Your task to perform on an android device: change timer sound Image 0: 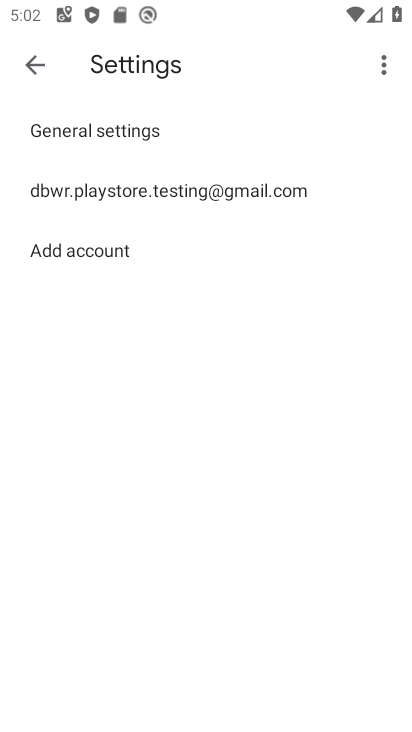
Step 0: press back button
Your task to perform on an android device: change timer sound Image 1: 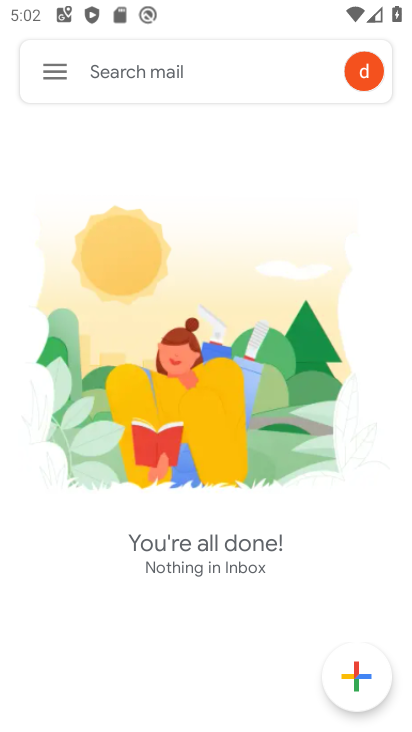
Step 1: press back button
Your task to perform on an android device: change timer sound Image 2: 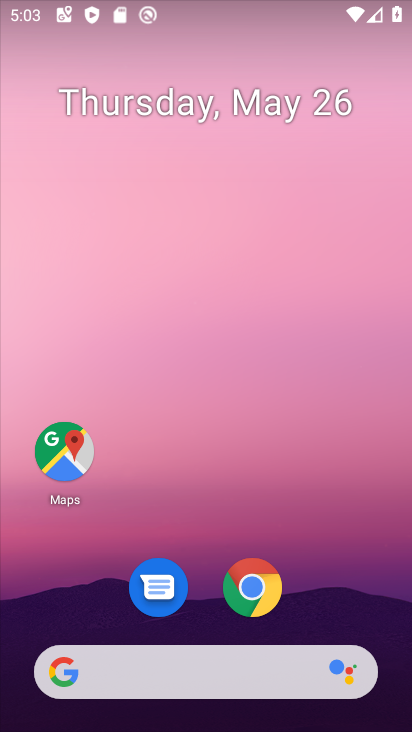
Step 2: drag from (333, 546) to (266, 66)
Your task to perform on an android device: change timer sound Image 3: 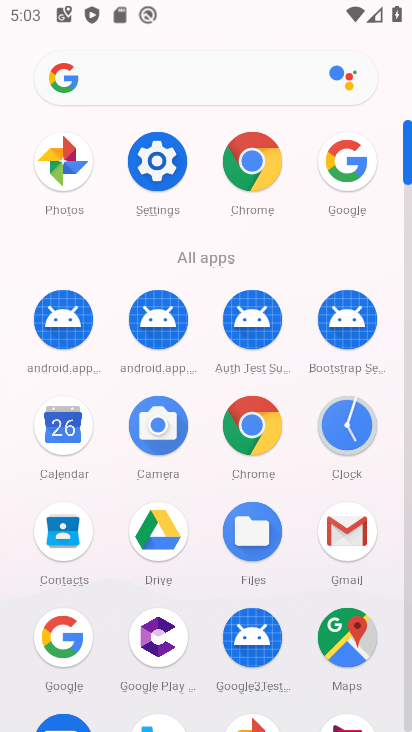
Step 3: click (347, 425)
Your task to perform on an android device: change timer sound Image 4: 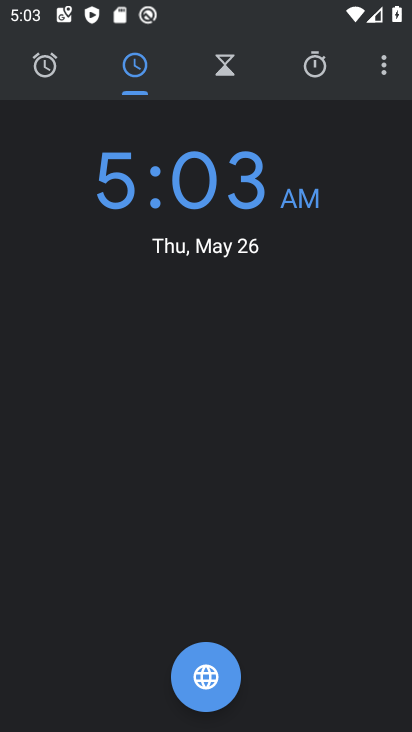
Step 4: click (386, 72)
Your task to perform on an android device: change timer sound Image 5: 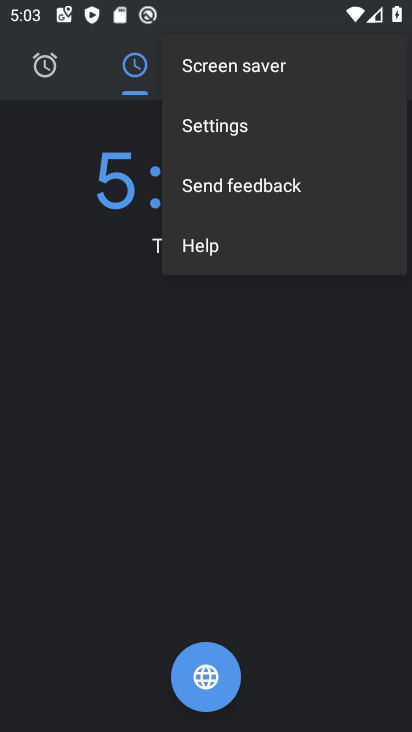
Step 5: click (229, 132)
Your task to perform on an android device: change timer sound Image 6: 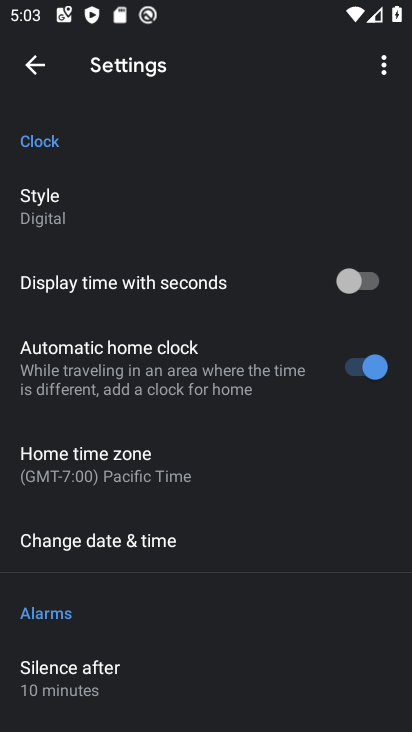
Step 6: drag from (93, 433) to (116, 309)
Your task to perform on an android device: change timer sound Image 7: 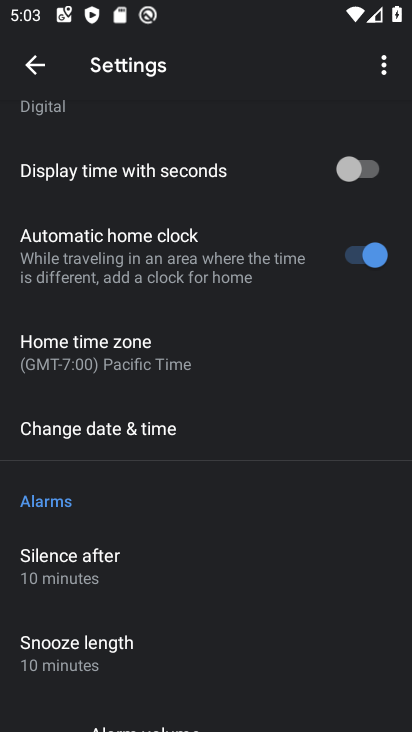
Step 7: drag from (115, 503) to (147, 410)
Your task to perform on an android device: change timer sound Image 8: 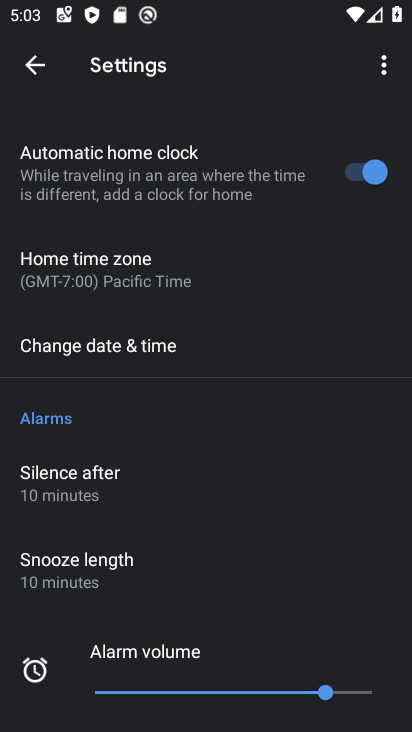
Step 8: drag from (91, 601) to (143, 436)
Your task to perform on an android device: change timer sound Image 9: 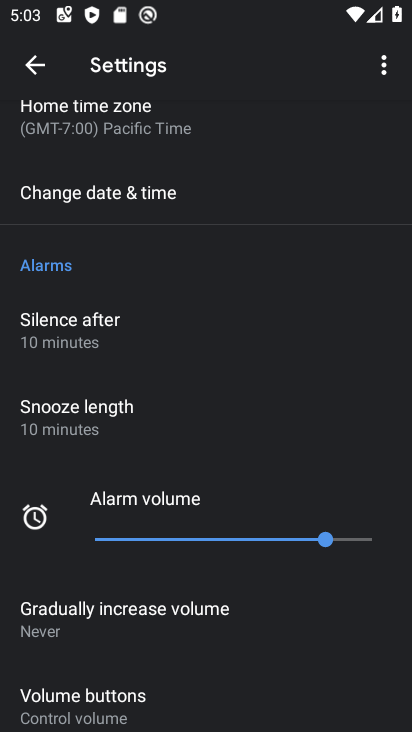
Step 9: drag from (105, 632) to (173, 483)
Your task to perform on an android device: change timer sound Image 10: 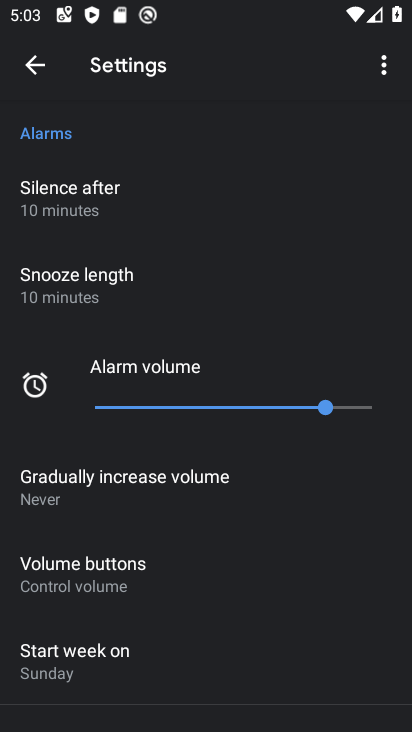
Step 10: drag from (99, 616) to (178, 478)
Your task to perform on an android device: change timer sound Image 11: 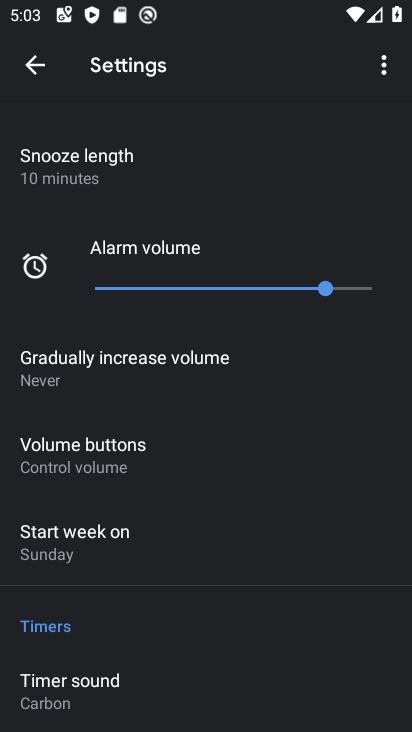
Step 11: drag from (108, 637) to (202, 474)
Your task to perform on an android device: change timer sound Image 12: 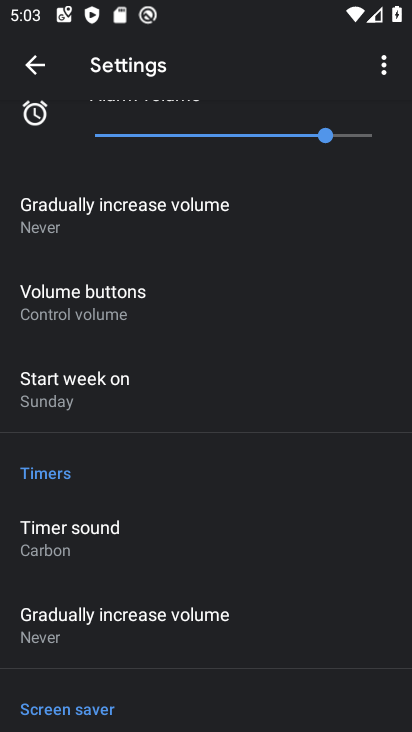
Step 12: click (128, 530)
Your task to perform on an android device: change timer sound Image 13: 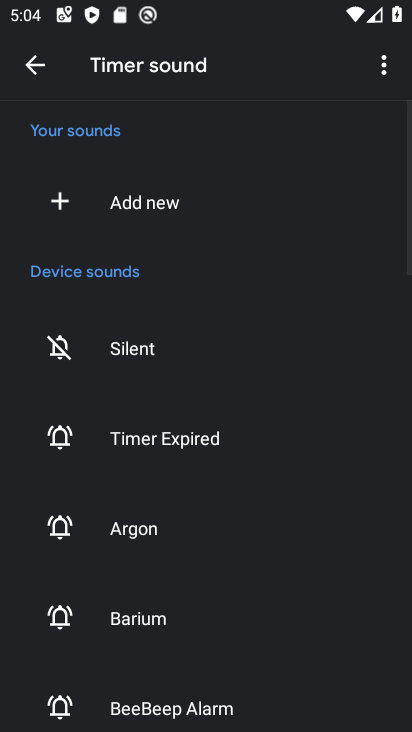
Step 13: drag from (179, 573) to (240, 373)
Your task to perform on an android device: change timer sound Image 14: 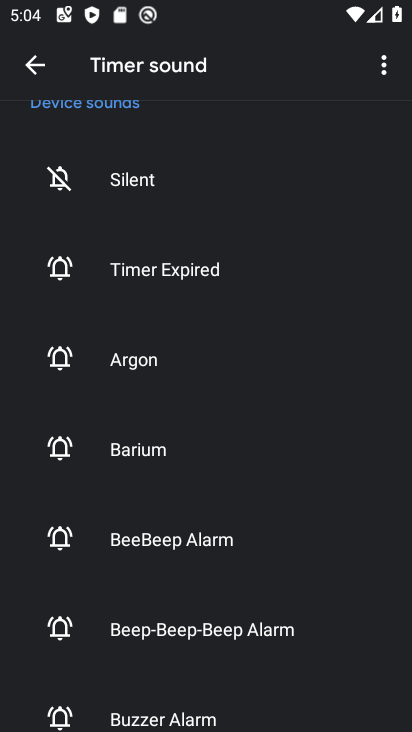
Step 14: drag from (170, 584) to (232, 419)
Your task to perform on an android device: change timer sound Image 15: 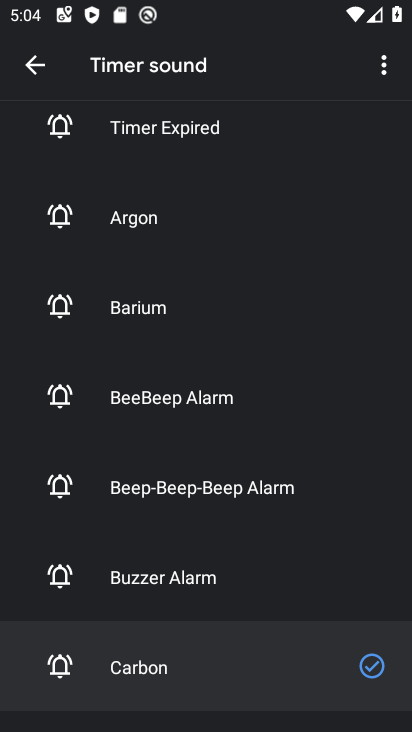
Step 15: drag from (184, 534) to (251, 261)
Your task to perform on an android device: change timer sound Image 16: 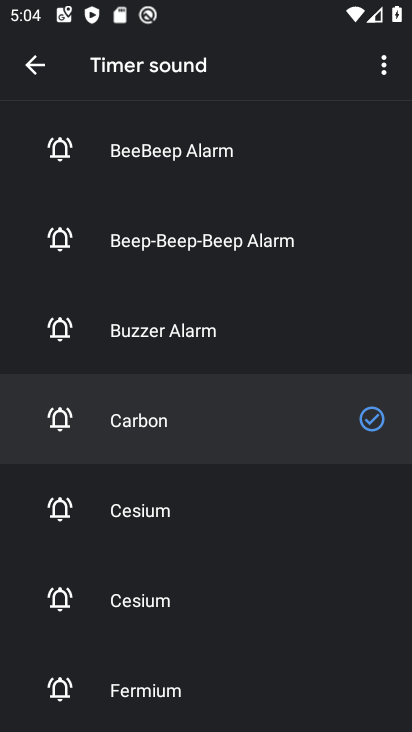
Step 16: drag from (153, 647) to (246, 344)
Your task to perform on an android device: change timer sound Image 17: 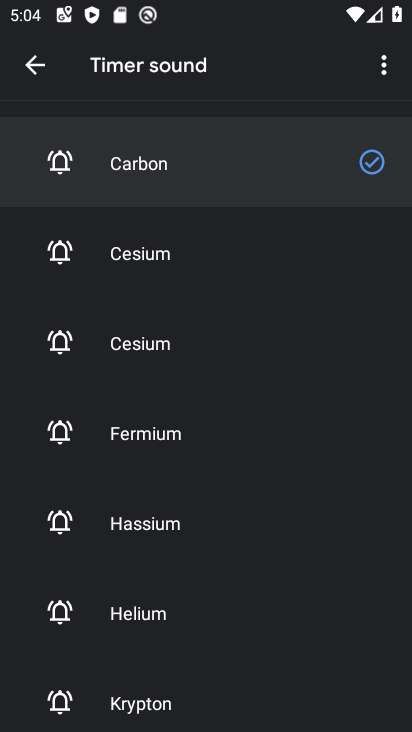
Step 17: drag from (155, 601) to (271, 377)
Your task to perform on an android device: change timer sound Image 18: 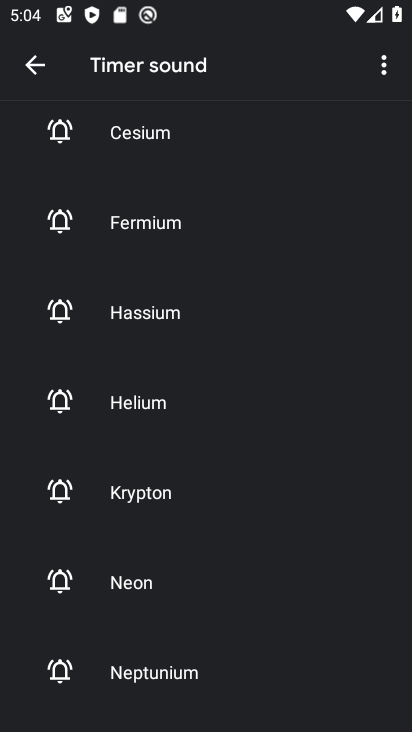
Step 18: click (155, 488)
Your task to perform on an android device: change timer sound Image 19: 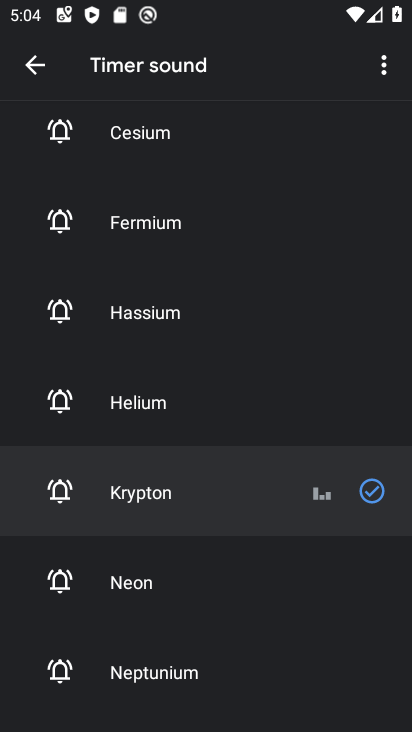
Step 19: task complete